Your task to perform on an android device: What's the weather today? Image 0: 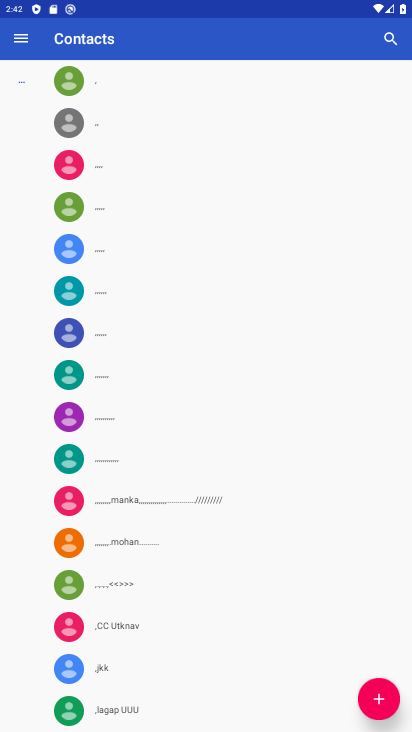
Step 0: press home button
Your task to perform on an android device: What's the weather today? Image 1: 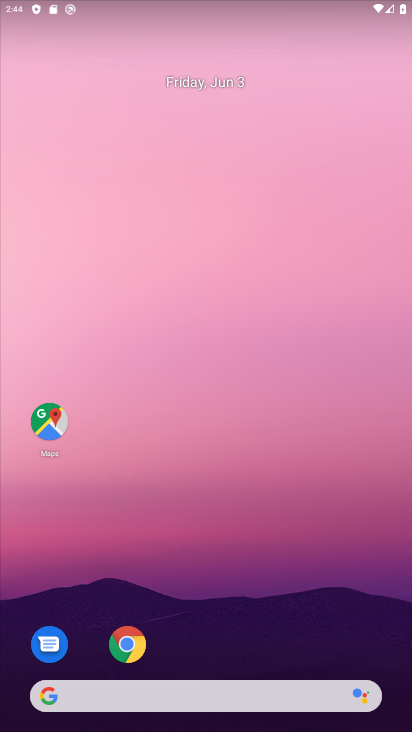
Step 1: click (115, 648)
Your task to perform on an android device: What's the weather today? Image 2: 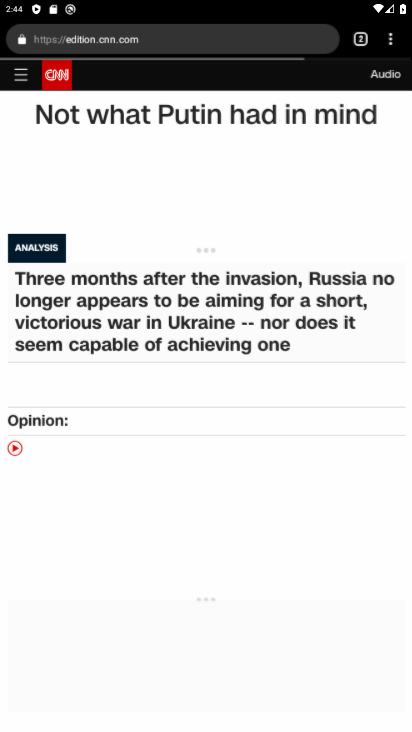
Step 2: click (137, 34)
Your task to perform on an android device: What's the weather today? Image 3: 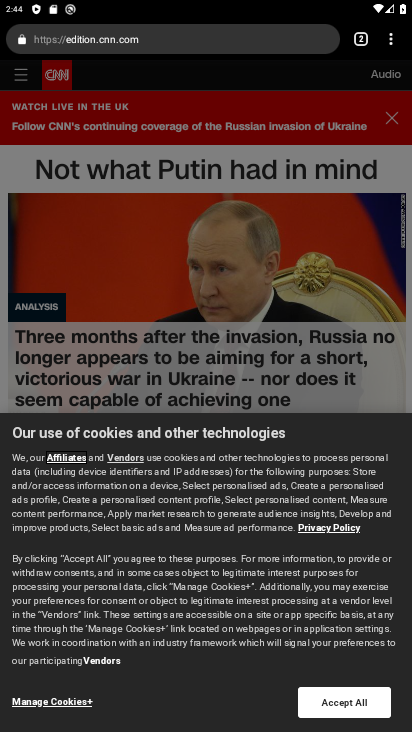
Step 3: click (137, 34)
Your task to perform on an android device: What's the weather today? Image 4: 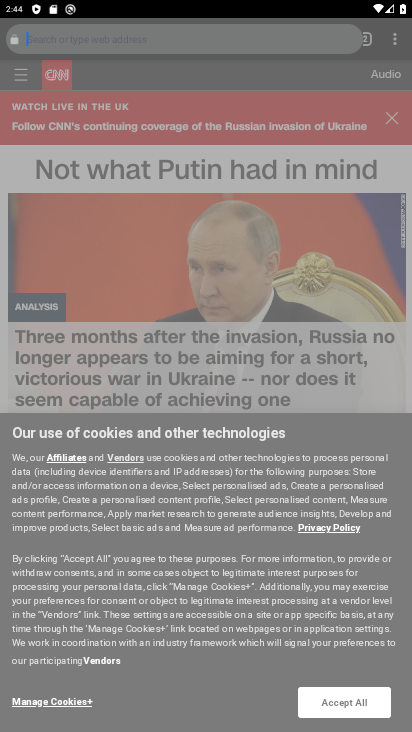
Step 4: click (137, 34)
Your task to perform on an android device: What's the weather today? Image 5: 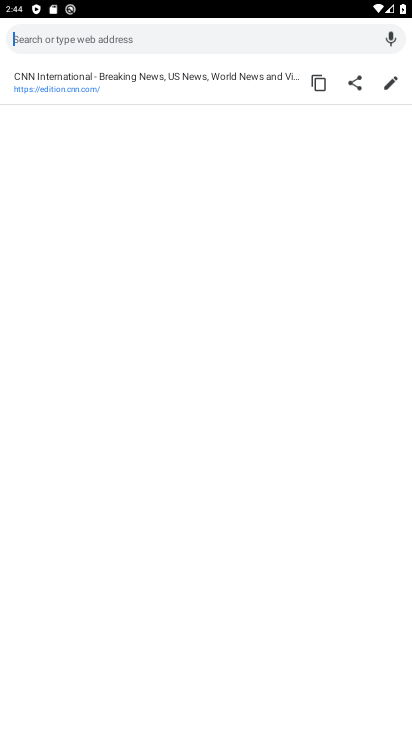
Step 5: click (137, 34)
Your task to perform on an android device: What's the weather today? Image 6: 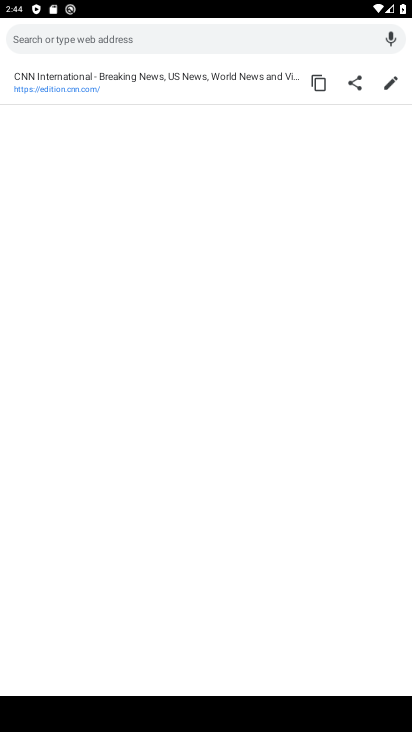
Step 6: click (137, 34)
Your task to perform on an android device: What's the weather today? Image 7: 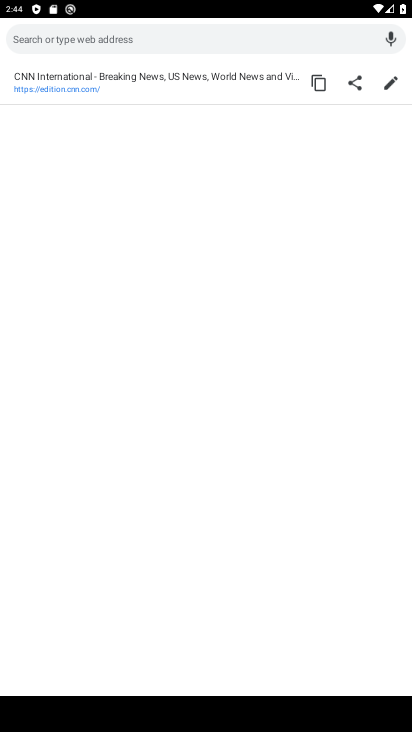
Step 7: click (137, 34)
Your task to perform on an android device: What's the weather today? Image 8: 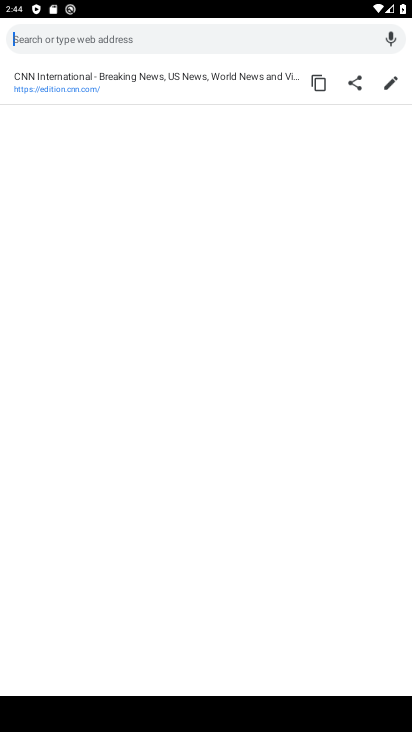
Step 8: click (137, 34)
Your task to perform on an android device: What's the weather today? Image 9: 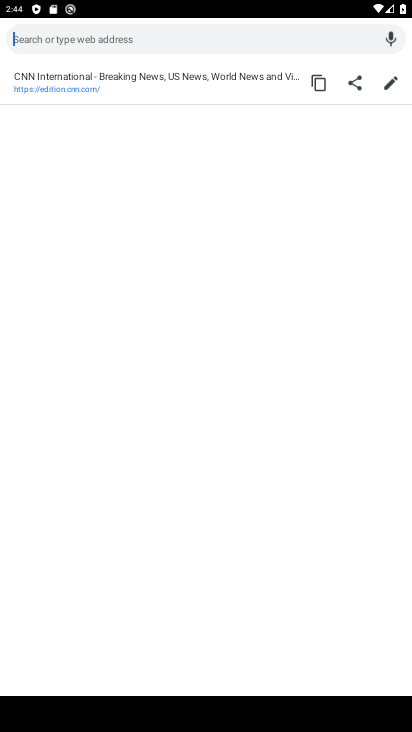
Step 9: click (137, 34)
Your task to perform on an android device: What's the weather today? Image 10: 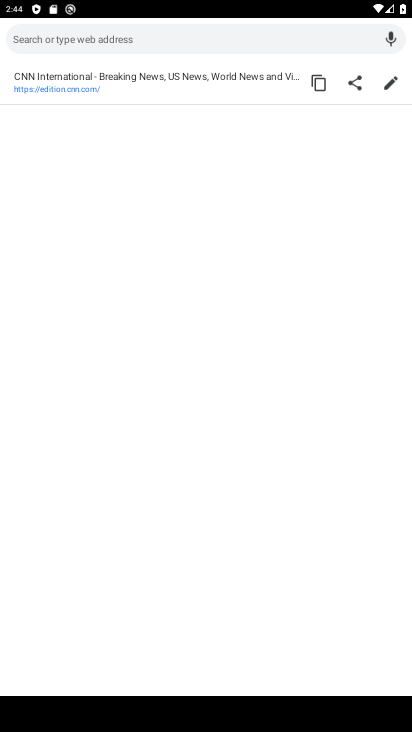
Step 10: click (137, 34)
Your task to perform on an android device: What's the weather today? Image 11: 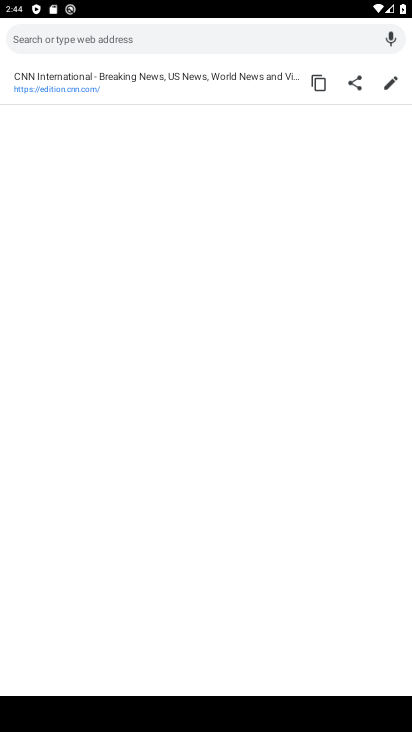
Step 11: type "What's the weather today?"
Your task to perform on an android device: What's the weather today? Image 12: 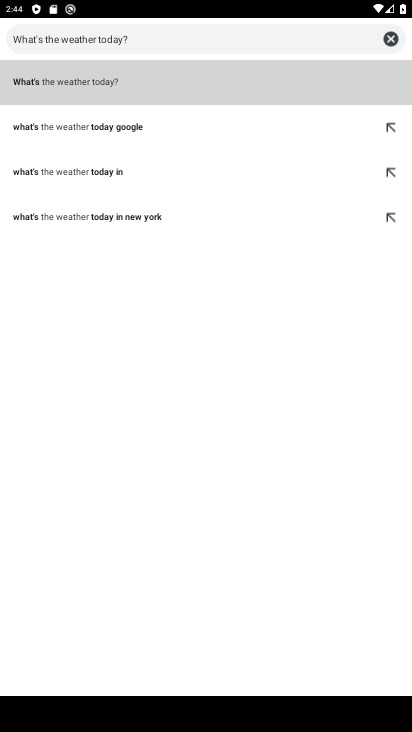
Step 12: click (166, 79)
Your task to perform on an android device: What's the weather today? Image 13: 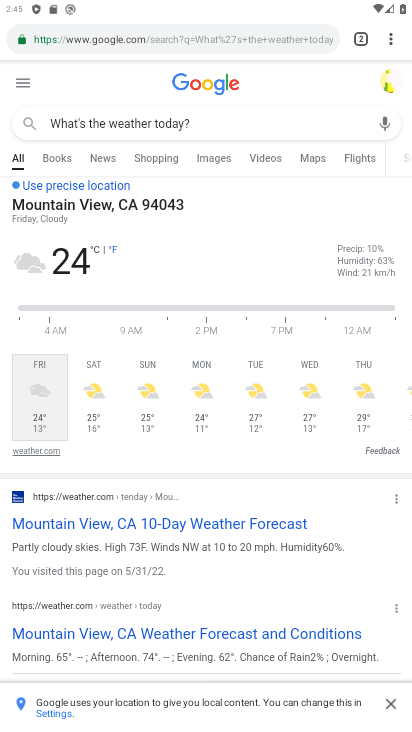
Step 13: task complete